Your task to perform on an android device: turn off translation in the chrome app Image 0: 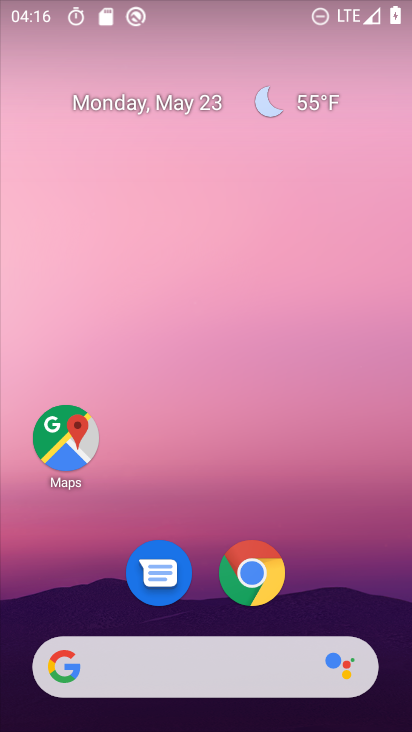
Step 0: click (258, 574)
Your task to perform on an android device: turn off translation in the chrome app Image 1: 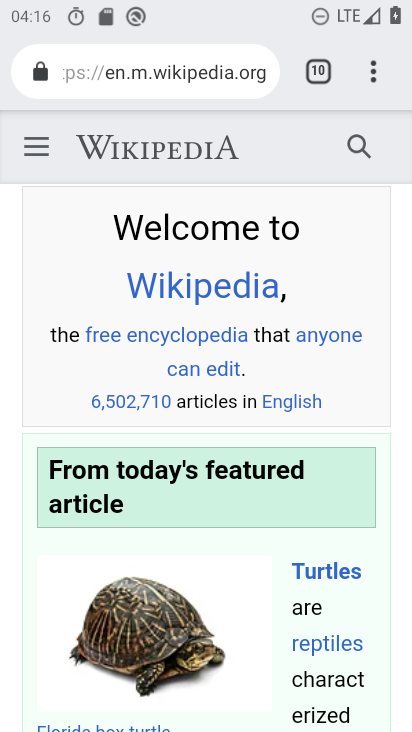
Step 1: click (374, 71)
Your task to perform on an android device: turn off translation in the chrome app Image 2: 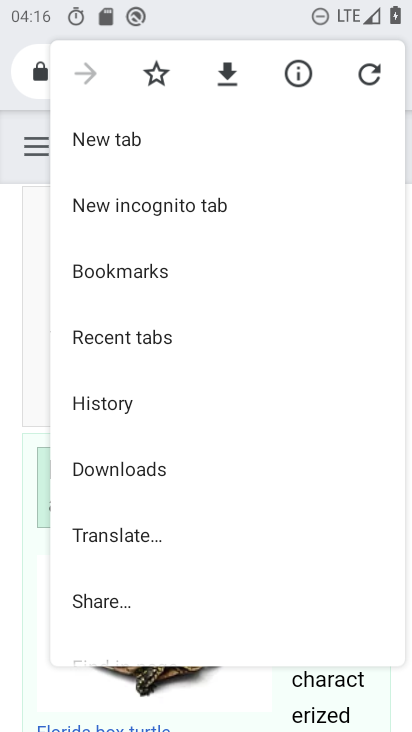
Step 2: drag from (185, 572) to (279, 52)
Your task to perform on an android device: turn off translation in the chrome app Image 3: 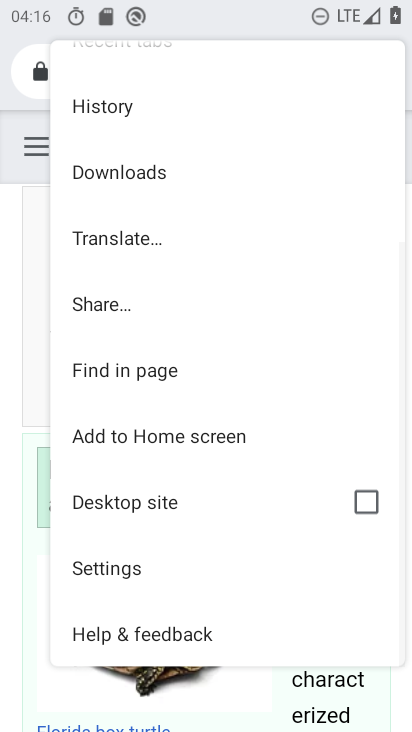
Step 3: click (109, 563)
Your task to perform on an android device: turn off translation in the chrome app Image 4: 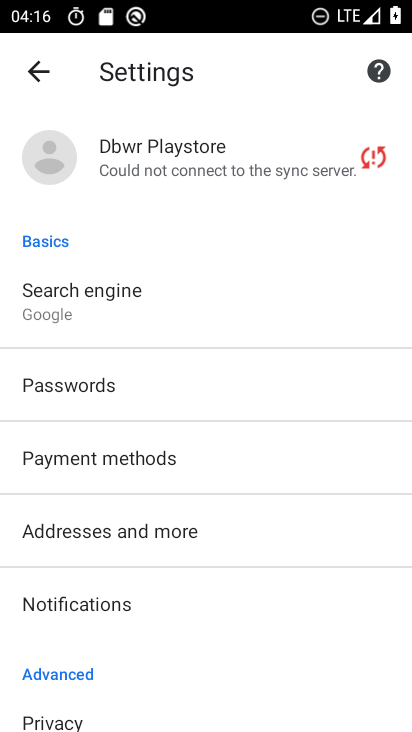
Step 4: drag from (178, 663) to (209, 170)
Your task to perform on an android device: turn off translation in the chrome app Image 5: 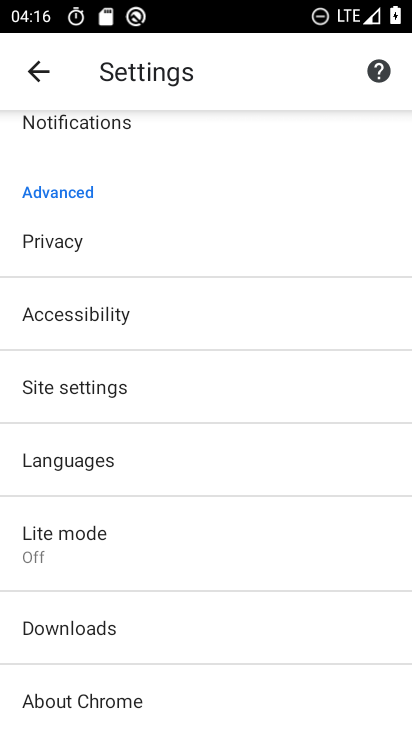
Step 5: click (93, 458)
Your task to perform on an android device: turn off translation in the chrome app Image 6: 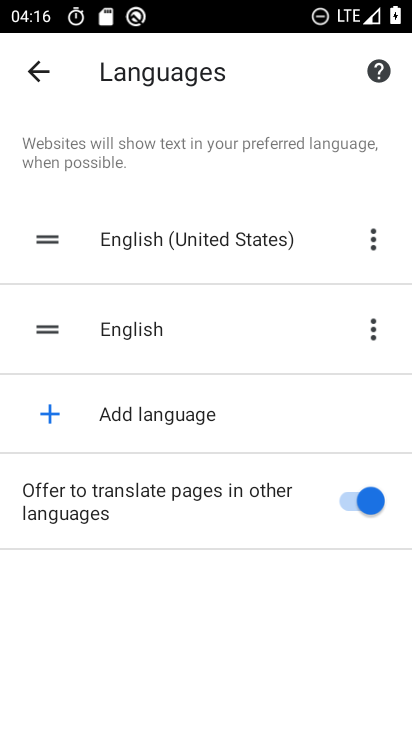
Step 6: click (351, 499)
Your task to perform on an android device: turn off translation in the chrome app Image 7: 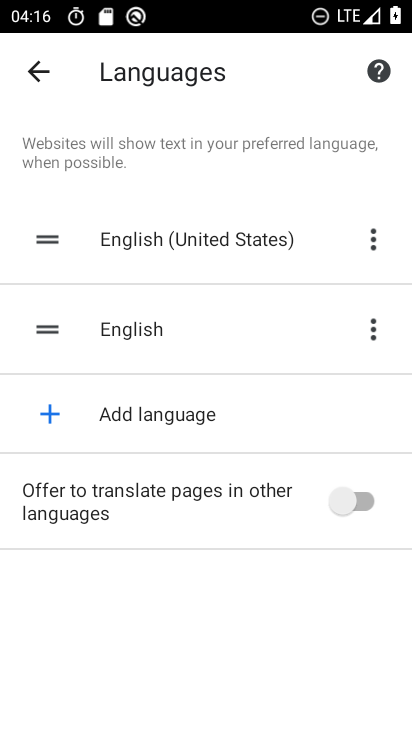
Step 7: task complete